Your task to perform on an android device: toggle translation in the chrome app Image 0: 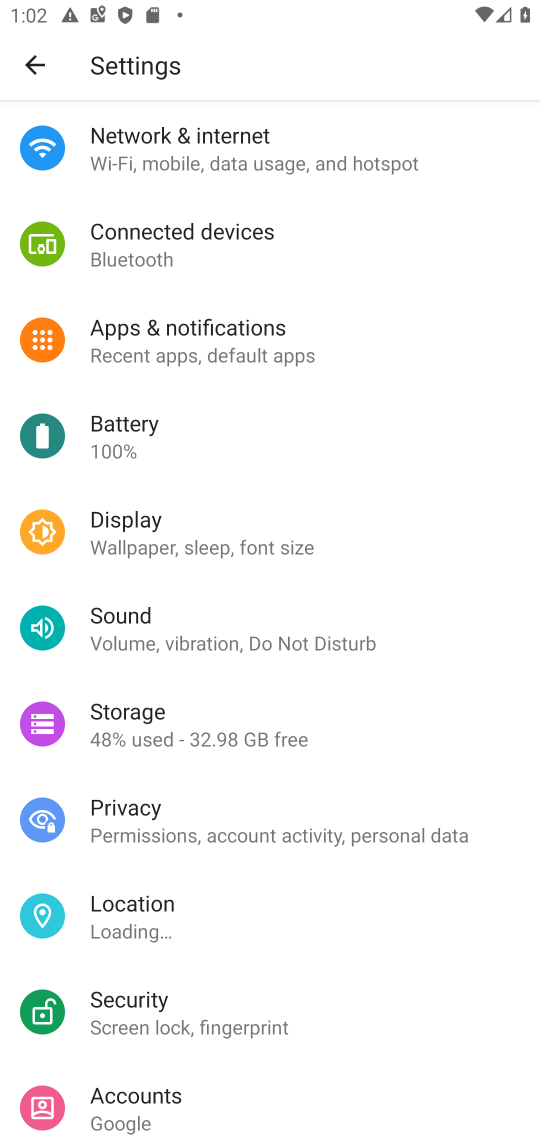
Step 0: press home button
Your task to perform on an android device: toggle translation in the chrome app Image 1: 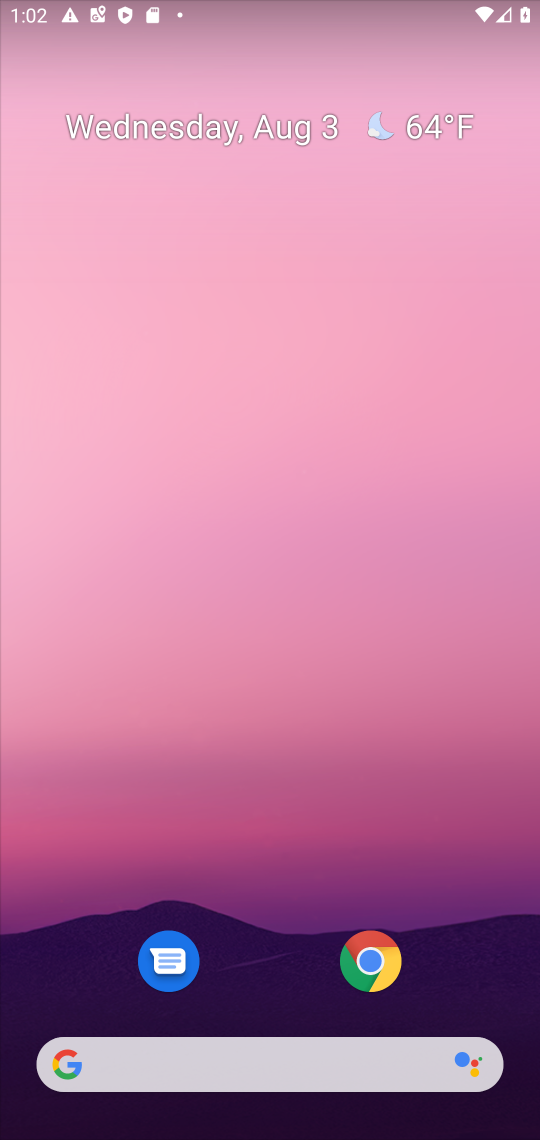
Step 1: click (377, 965)
Your task to perform on an android device: toggle translation in the chrome app Image 2: 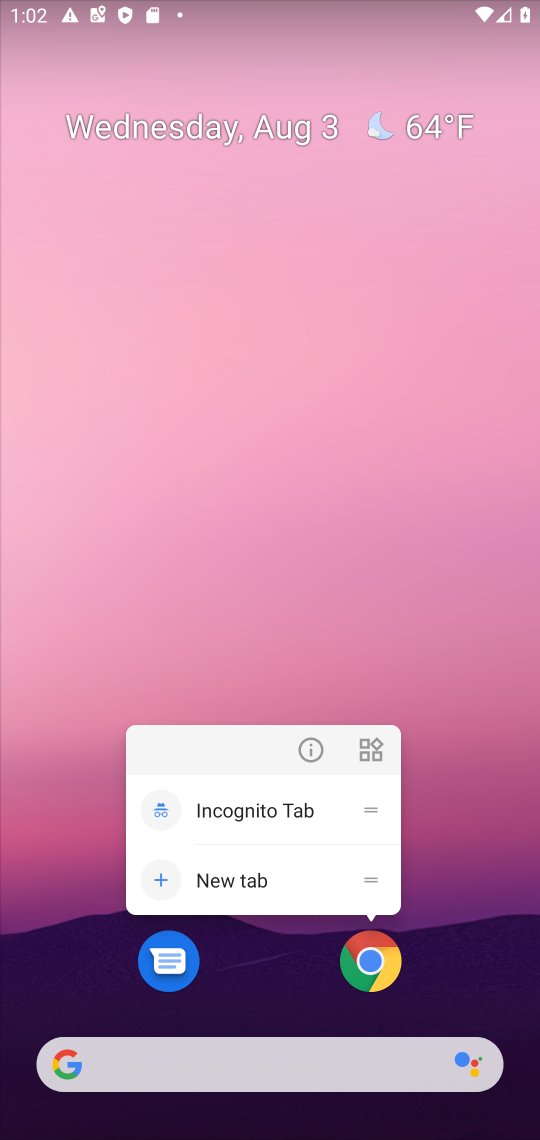
Step 2: click (377, 965)
Your task to perform on an android device: toggle translation in the chrome app Image 3: 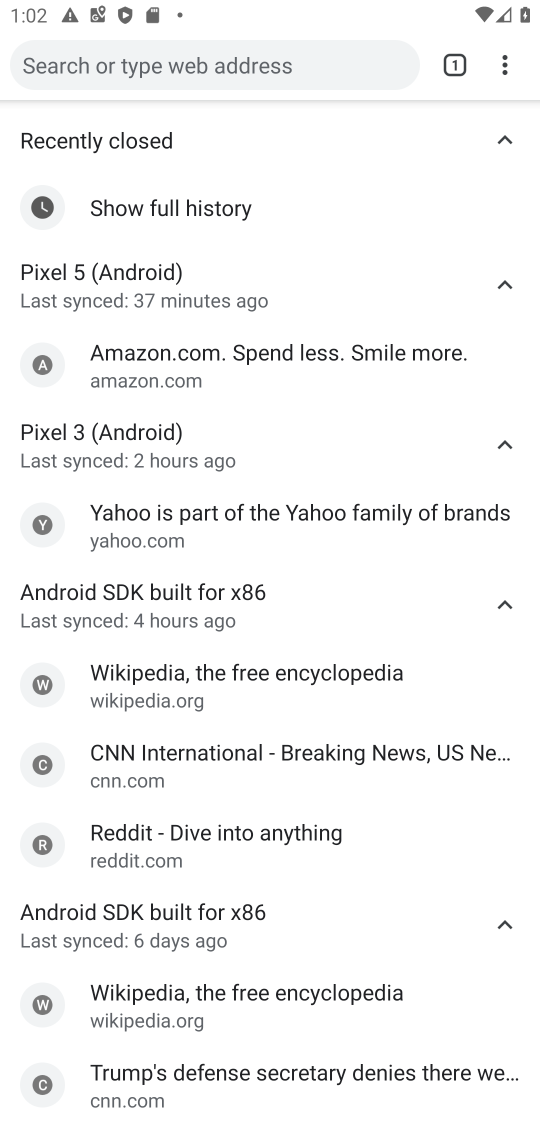
Step 3: drag from (508, 58) to (318, 547)
Your task to perform on an android device: toggle translation in the chrome app Image 4: 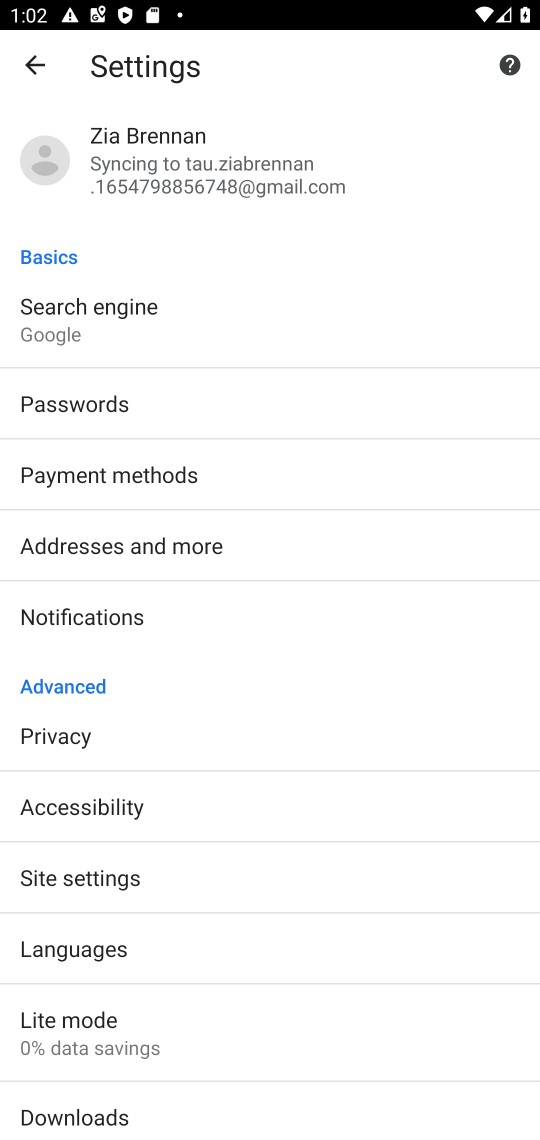
Step 4: click (101, 950)
Your task to perform on an android device: toggle translation in the chrome app Image 5: 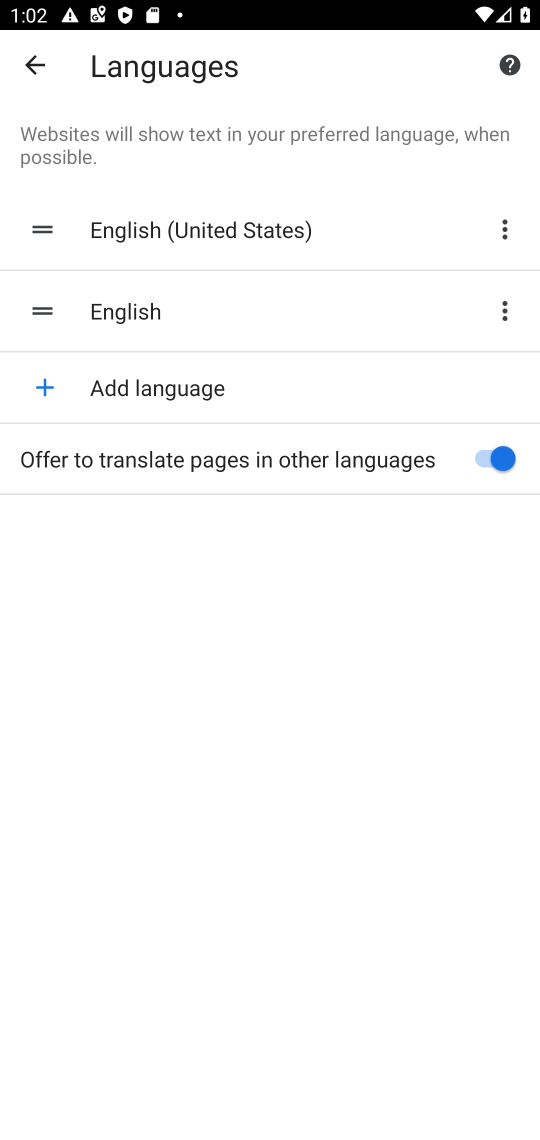
Step 5: click (495, 465)
Your task to perform on an android device: toggle translation in the chrome app Image 6: 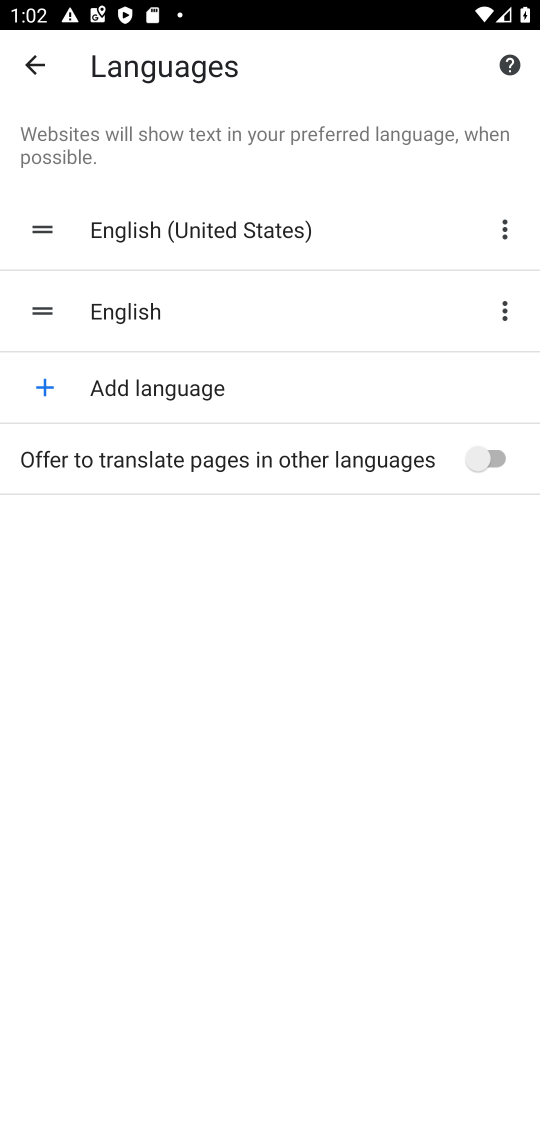
Step 6: task complete